Your task to perform on an android device: Go to Android settings Image 0: 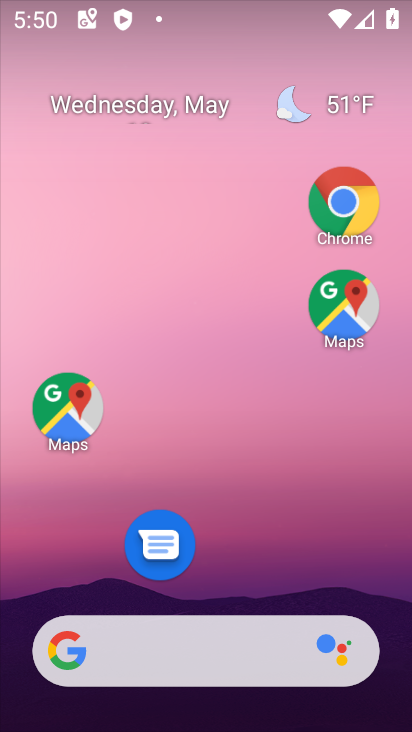
Step 0: drag from (235, 577) to (226, 58)
Your task to perform on an android device: Go to Android settings Image 1: 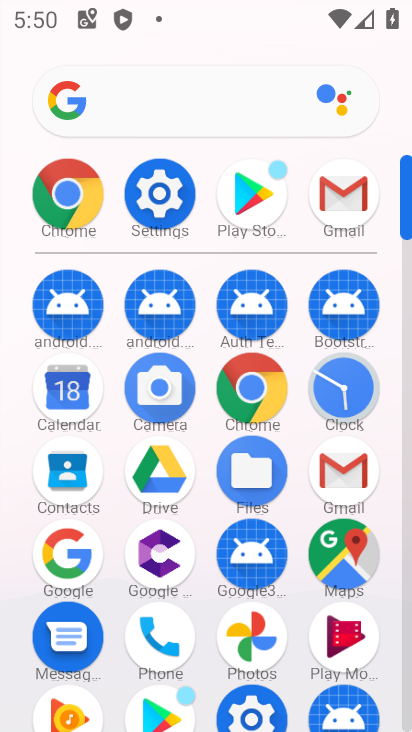
Step 1: click (157, 192)
Your task to perform on an android device: Go to Android settings Image 2: 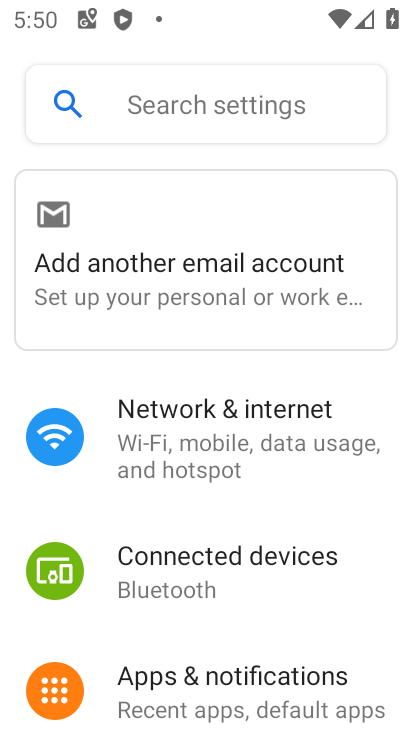
Step 2: drag from (227, 600) to (223, 105)
Your task to perform on an android device: Go to Android settings Image 3: 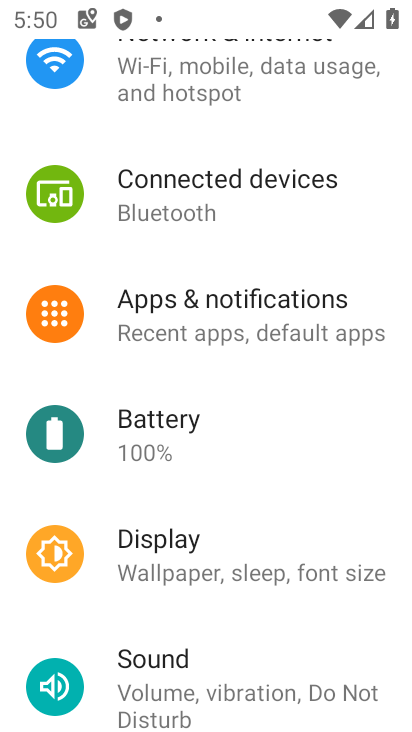
Step 3: drag from (223, 592) to (200, 60)
Your task to perform on an android device: Go to Android settings Image 4: 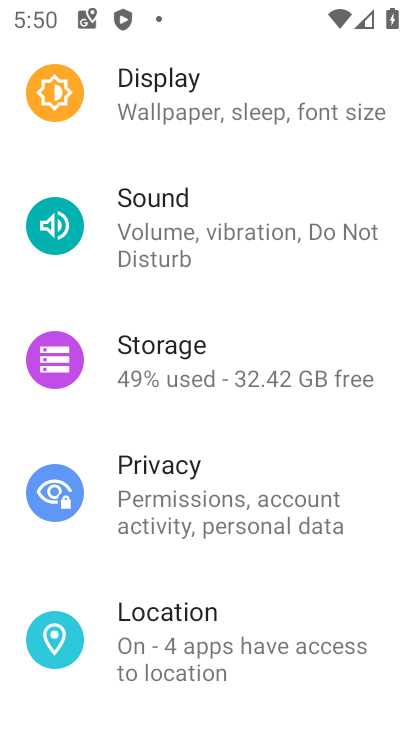
Step 4: click (146, 49)
Your task to perform on an android device: Go to Android settings Image 5: 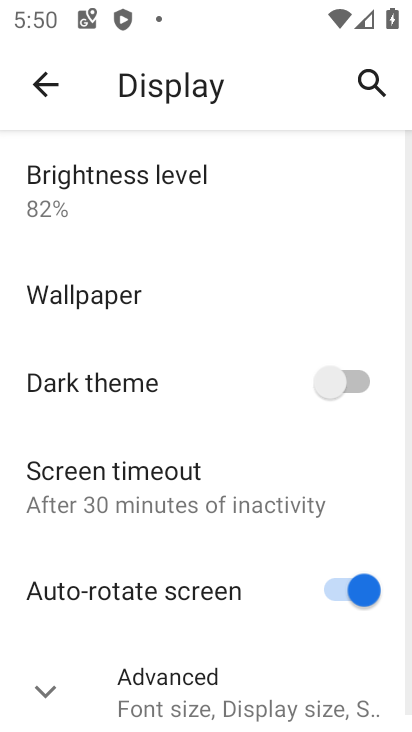
Step 5: press back button
Your task to perform on an android device: Go to Android settings Image 6: 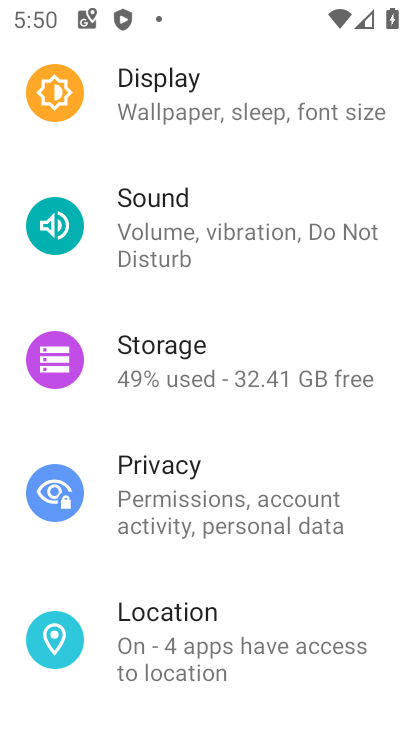
Step 6: drag from (196, 626) to (196, 127)
Your task to perform on an android device: Go to Android settings Image 7: 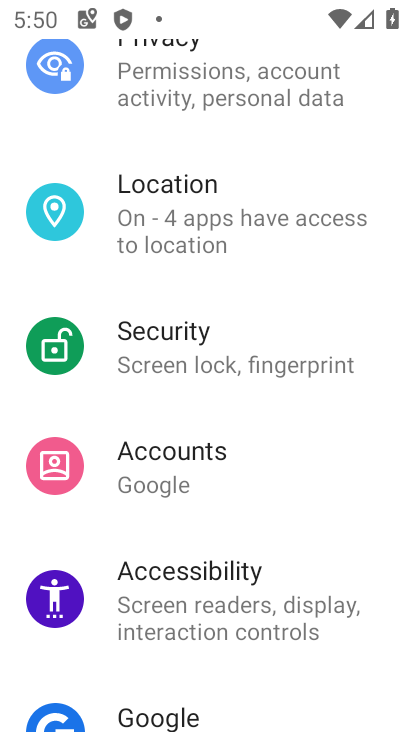
Step 7: click (194, 141)
Your task to perform on an android device: Go to Android settings Image 8: 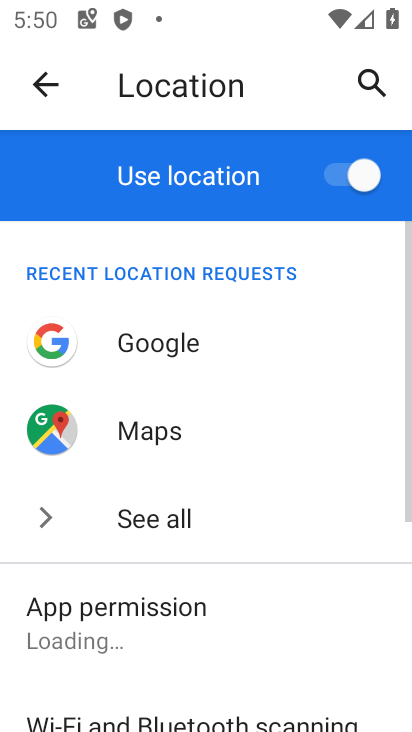
Step 8: press back button
Your task to perform on an android device: Go to Android settings Image 9: 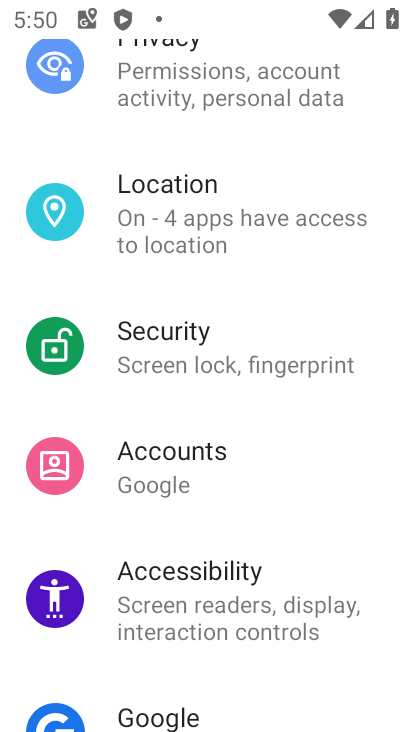
Step 9: drag from (186, 566) to (141, 178)
Your task to perform on an android device: Go to Android settings Image 10: 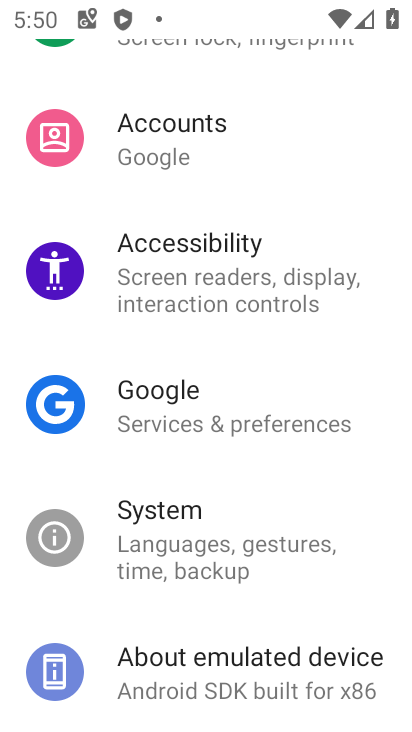
Step 10: click (213, 701)
Your task to perform on an android device: Go to Android settings Image 11: 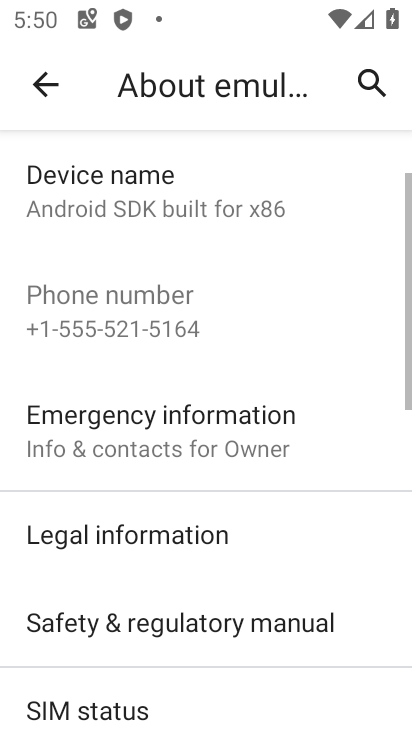
Step 11: drag from (156, 681) to (156, 216)
Your task to perform on an android device: Go to Android settings Image 12: 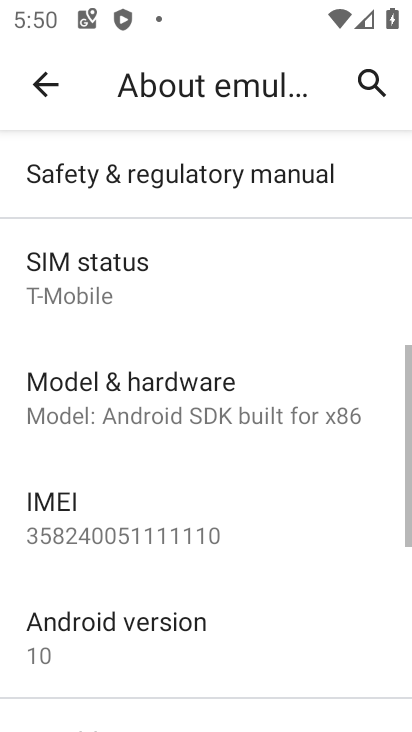
Step 12: click (199, 275)
Your task to perform on an android device: Go to Android settings Image 13: 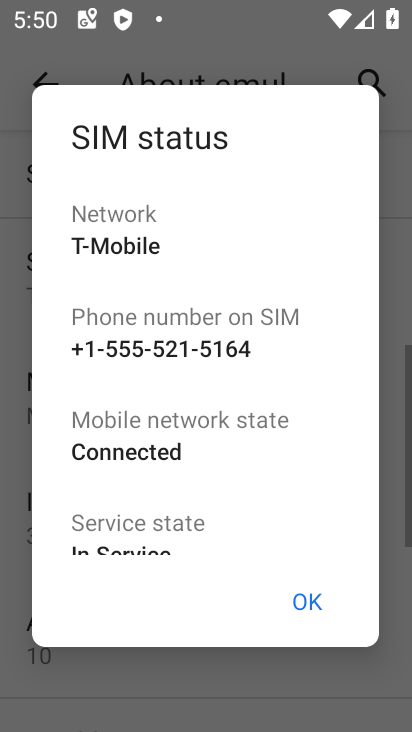
Step 13: click (295, 608)
Your task to perform on an android device: Go to Android settings Image 14: 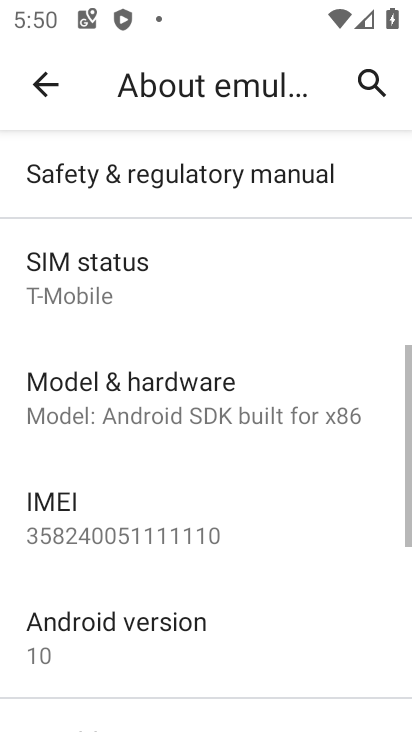
Step 14: drag from (156, 654) to (173, 264)
Your task to perform on an android device: Go to Android settings Image 15: 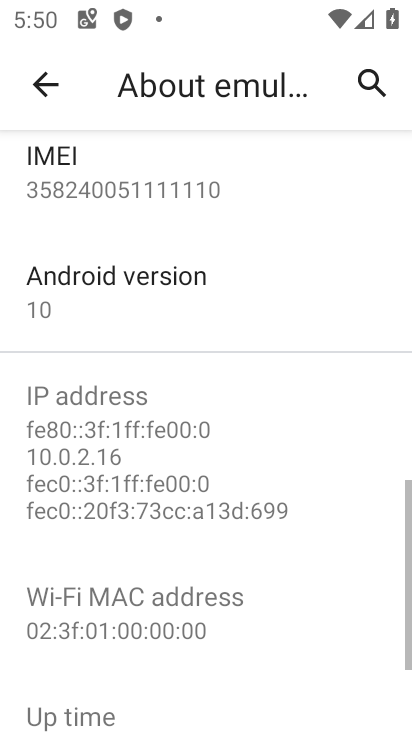
Step 15: click (164, 299)
Your task to perform on an android device: Go to Android settings Image 16: 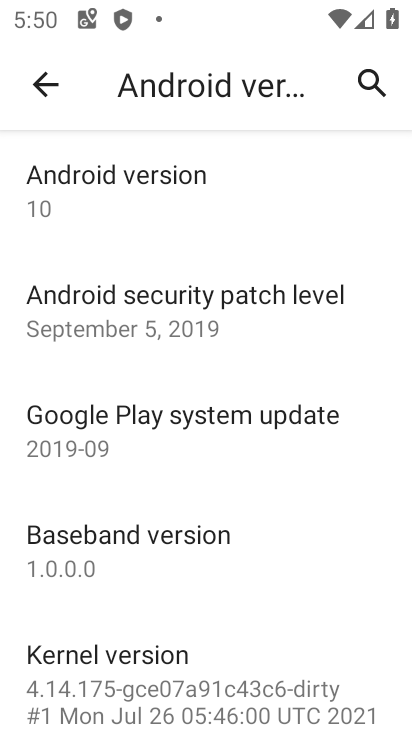
Step 16: task complete